Your task to perform on an android device: Google the capital of Venezuela Image 0: 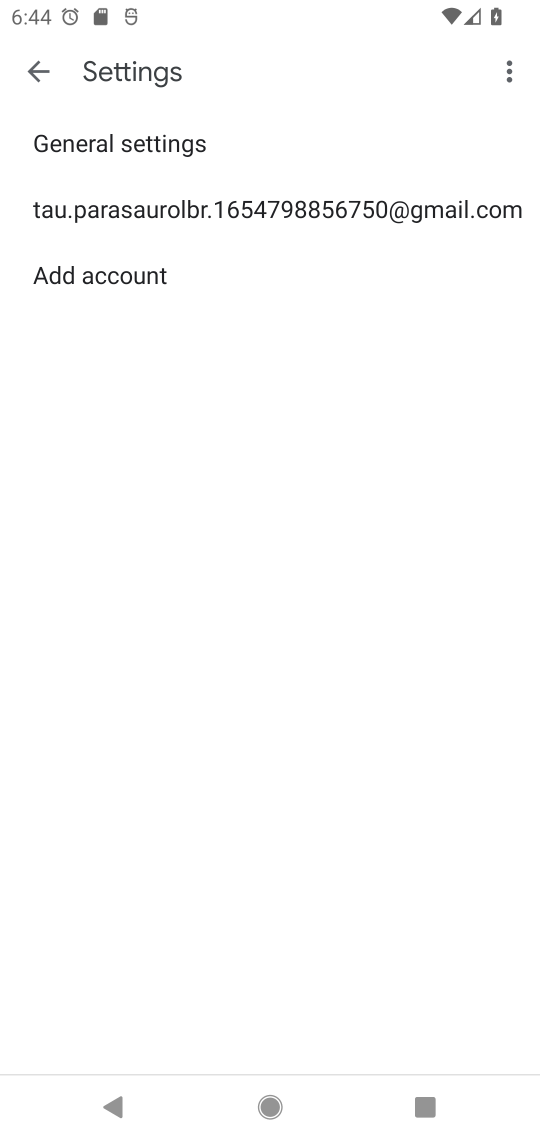
Step 0: press home button
Your task to perform on an android device: Google the capital of Venezuela Image 1: 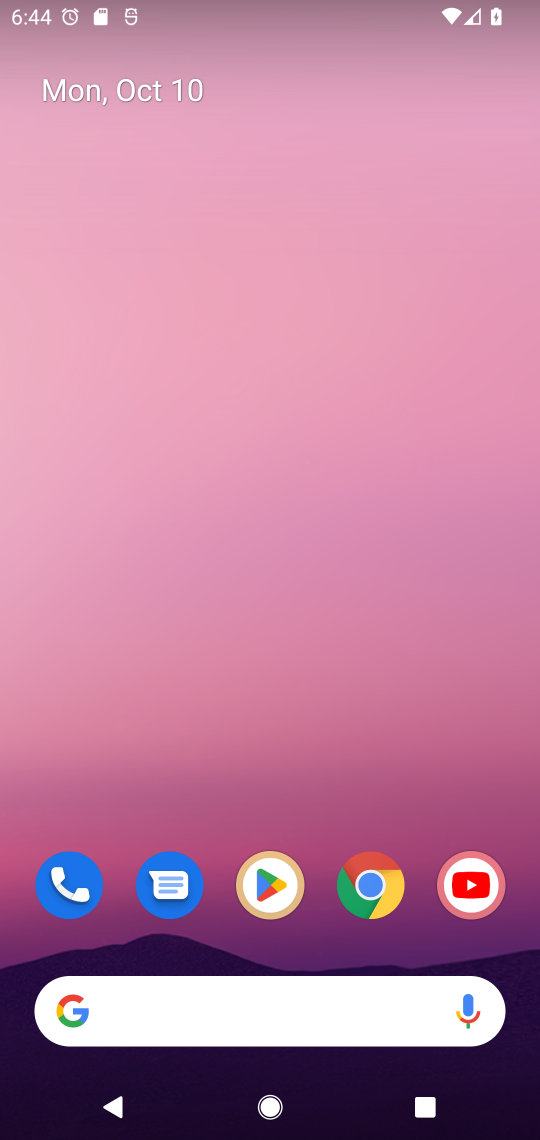
Step 1: click (373, 884)
Your task to perform on an android device: Google the capital of Venezuela Image 2: 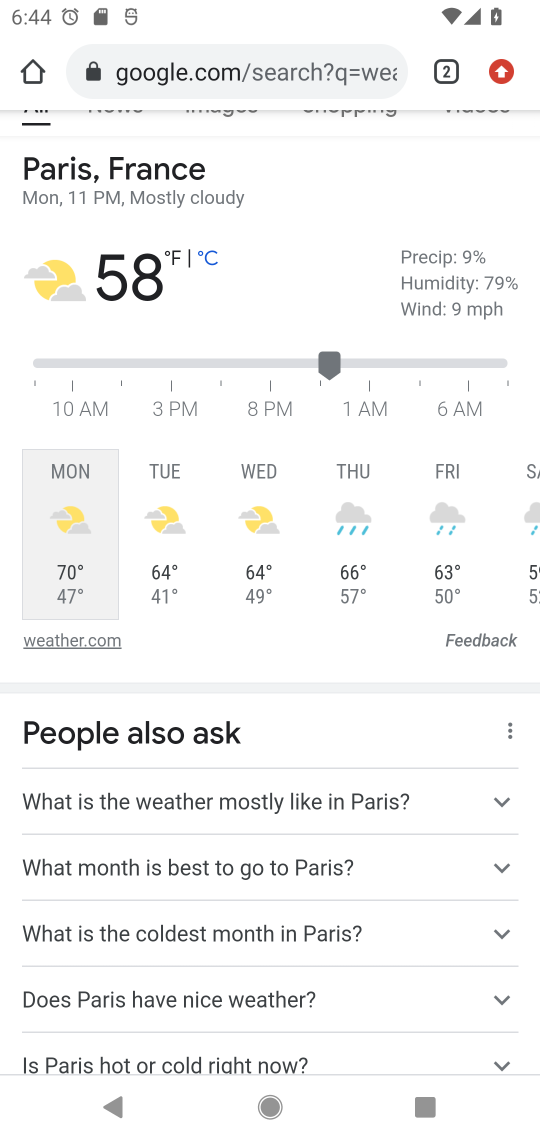
Step 2: click (252, 82)
Your task to perform on an android device: Google the capital of Venezuela Image 3: 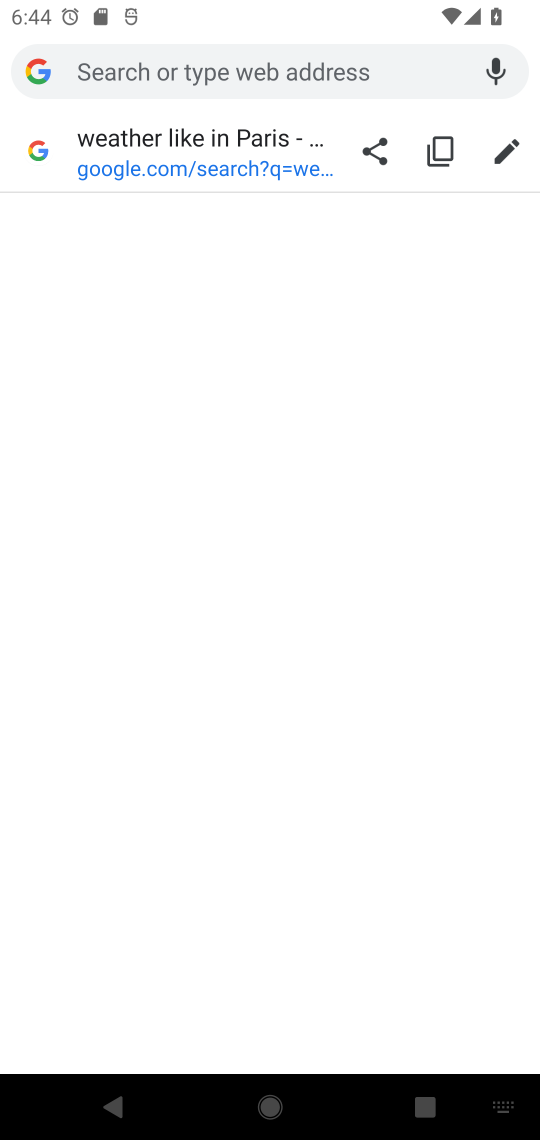
Step 3: type "capital of Venezuela"
Your task to perform on an android device: Google the capital of Venezuela Image 4: 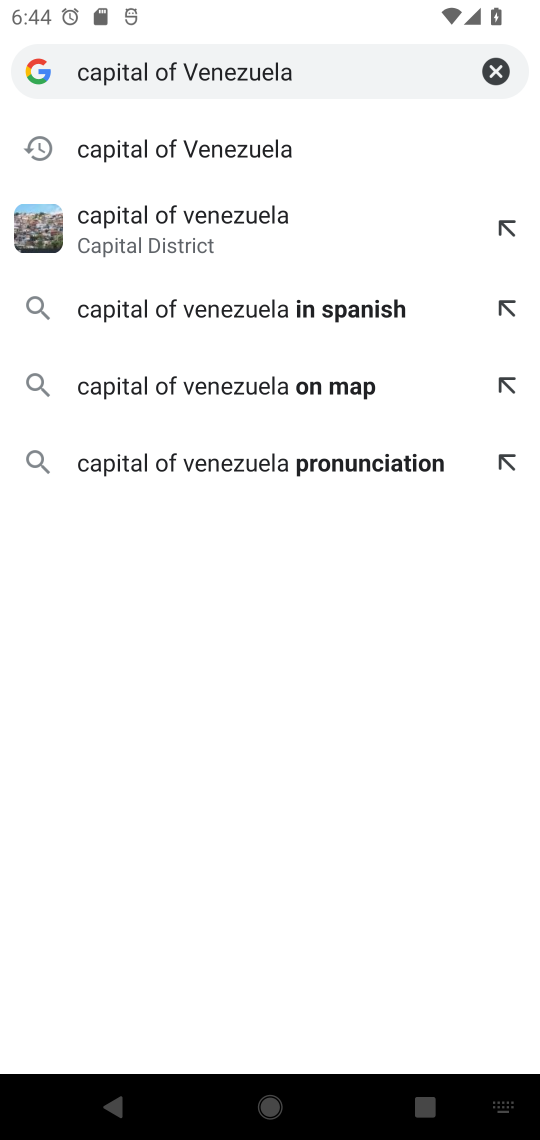
Step 4: click (237, 143)
Your task to perform on an android device: Google the capital of Venezuela Image 5: 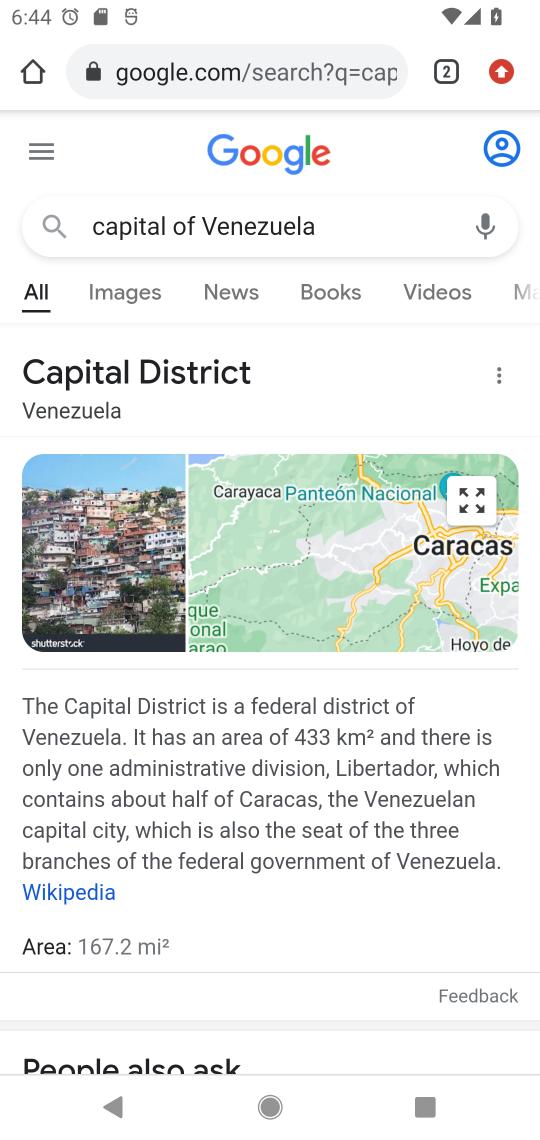
Step 5: task complete